Your task to perform on an android device: toggle notifications settings in the gmail app Image 0: 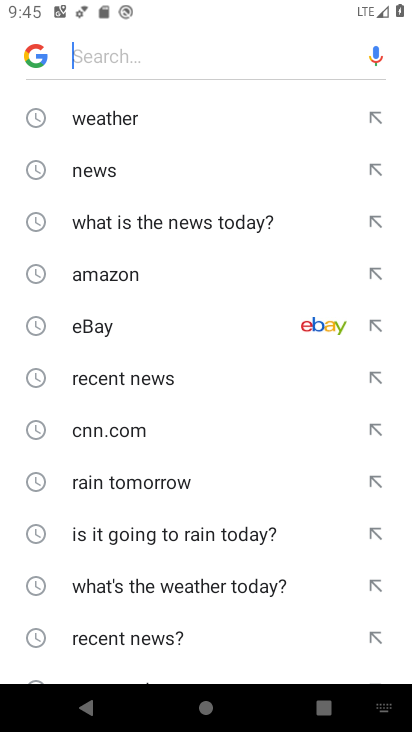
Step 0: press home button
Your task to perform on an android device: toggle notifications settings in the gmail app Image 1: 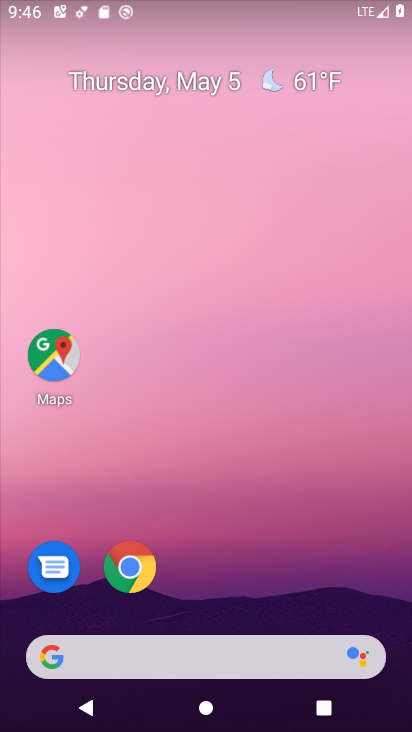
Step 1: drag from (299, 571) to (292, 112)
Your task to perform on an android device: toggle notifications settings in the gmail app Image 2: 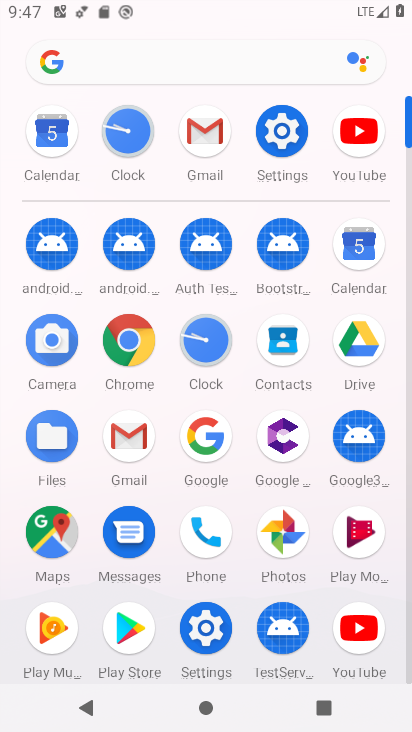
Step 2: click (208, 131)
Your task to perform on an android device: toggle notifications settings in the gmail app Image 3: 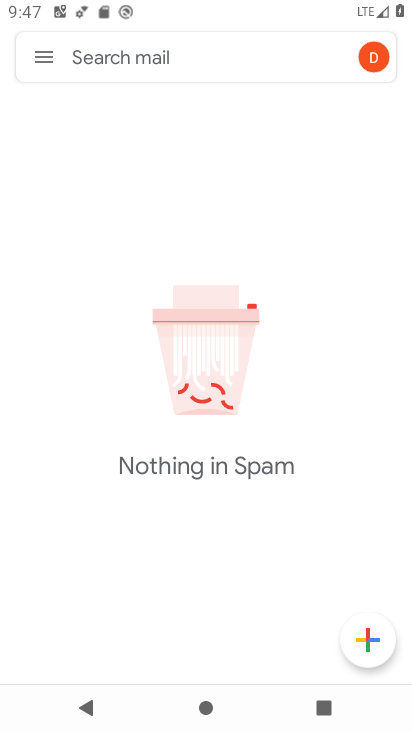
Step 3: click (49, 54)
Your task to perform on an android device: toggle notifications settings in the gmail app Image 4: 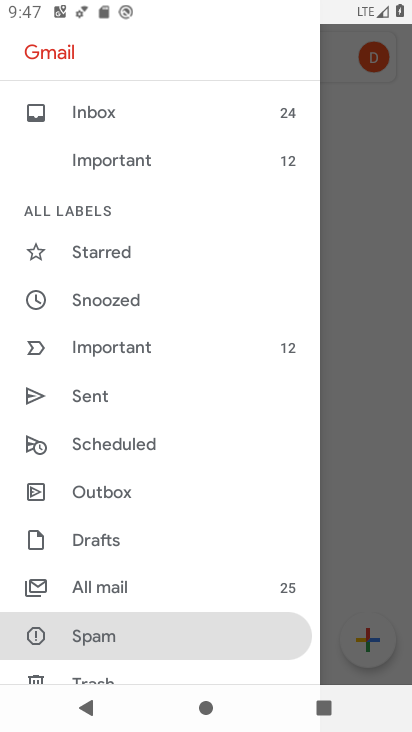
Step 4: drag from (173, 507) to (170, 318)
Your task to perform on an android device: toggle notifications settings in the gmail app Image 5: 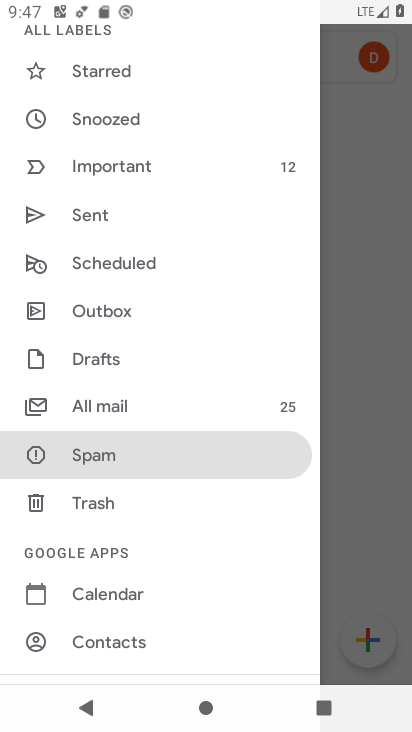
Step 5: drag from (186, 618) to (190, 315)
Your task to perform on an android device: toggle notifications settings in the gmail app Image 6: 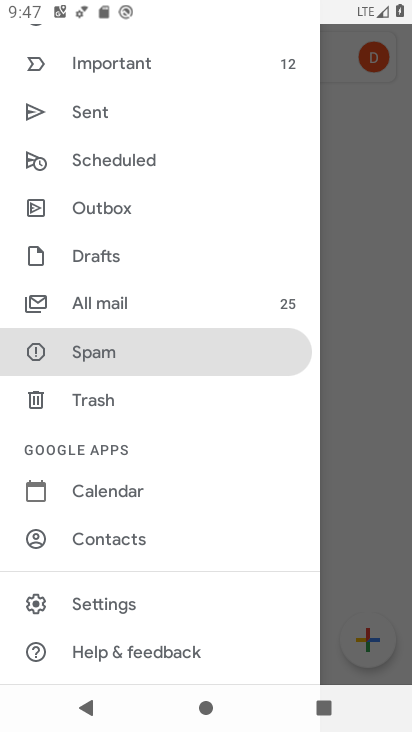
Step 6: click (136, 608)
Your task to perform on an android device: toggle notifications settings in the gmail app Image 7: 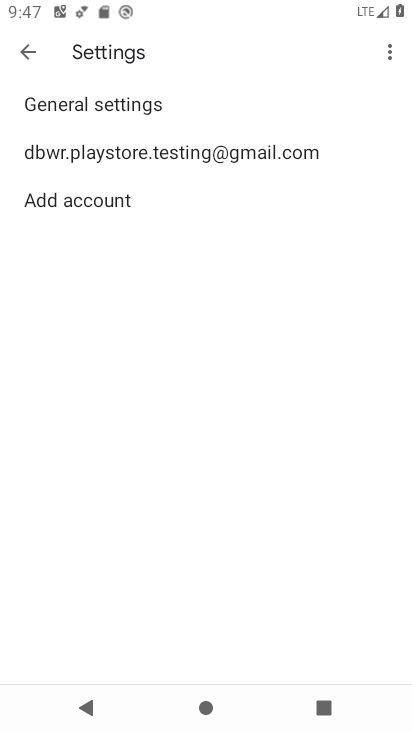
Step 7: click (119, 100)
Your task to perform on an android device: toggle notifications settings in the gmail app Image 8: 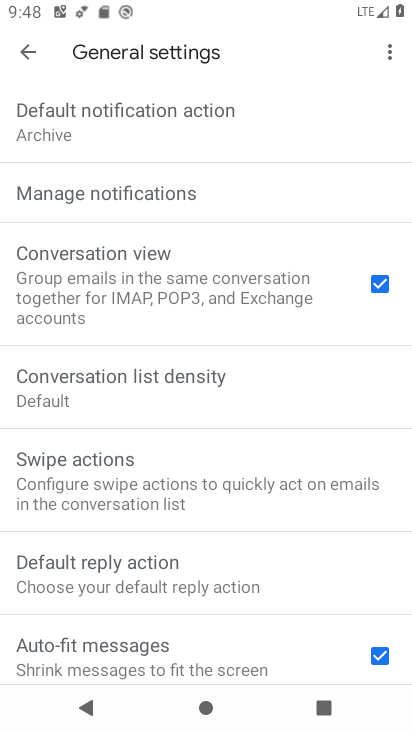
Step 8: click (145, 197)
Your task to perform on an android device: toggle notifications settings in the gmail app Image 9: 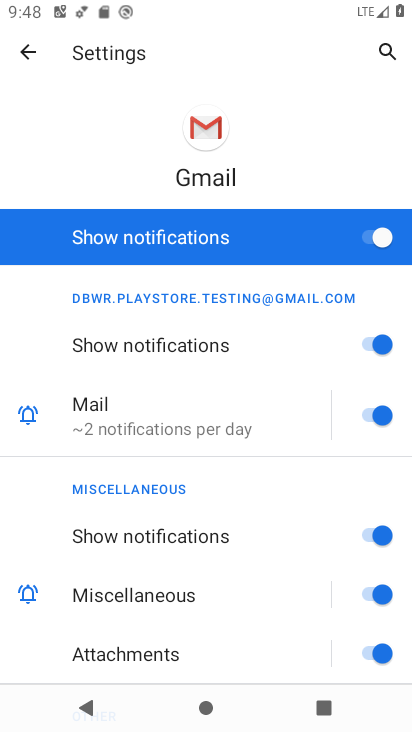
Step 9: click (370, 412)
Your task to perform on an android device: toggle notifications settings in the gmail app Image 10: 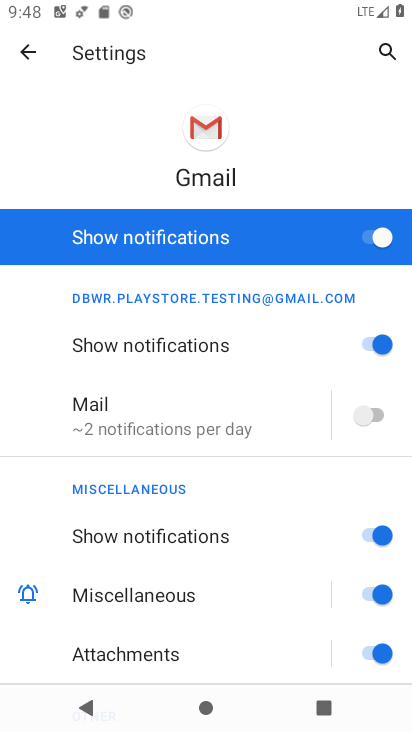
Step 10: task complete